Your task to perform on an android device: Open ESPN.com Image 0: 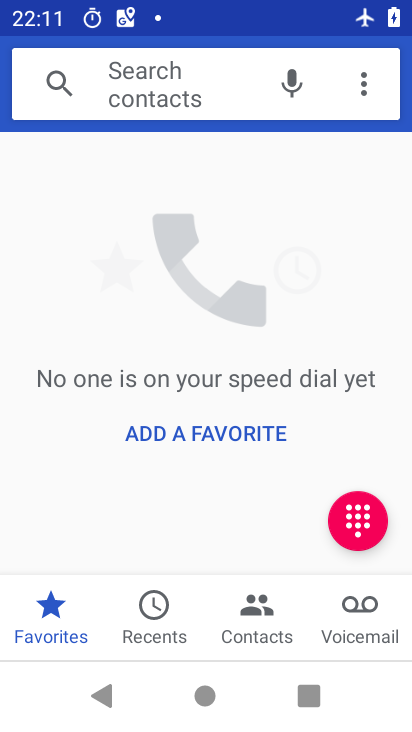
Step 0: press home button
Your task to perform on an android device: Open ESPN.com Image 1: 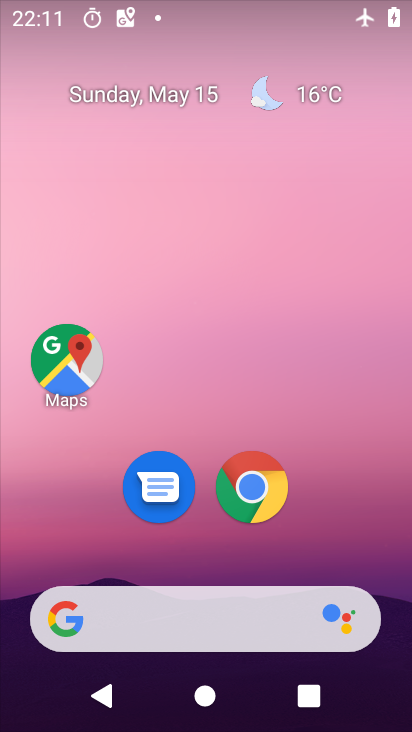
Step 1: click (255, 489)
Your task to perform on an android device: Open ESPN.com Image 2: 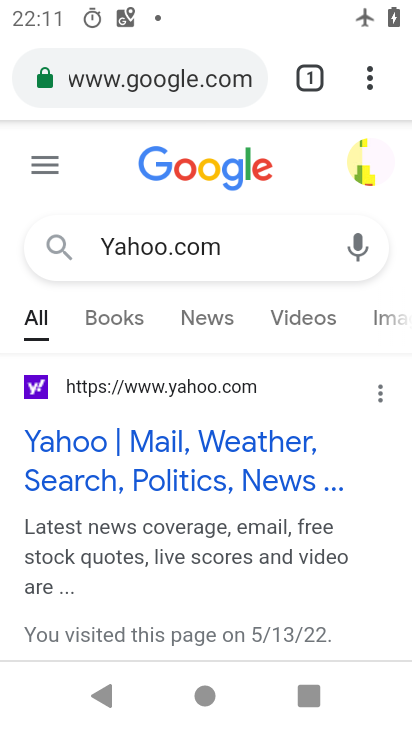
Step 2: click (251, 79)
Your task to perform on an android device: Open ESPN.com Image 3: 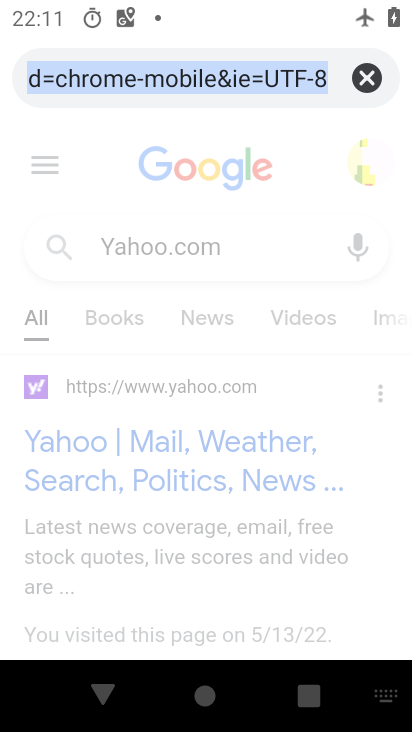
Step 3: click (358, 78)
Your task to perform on an android device: Open ESPN.com Image 4: 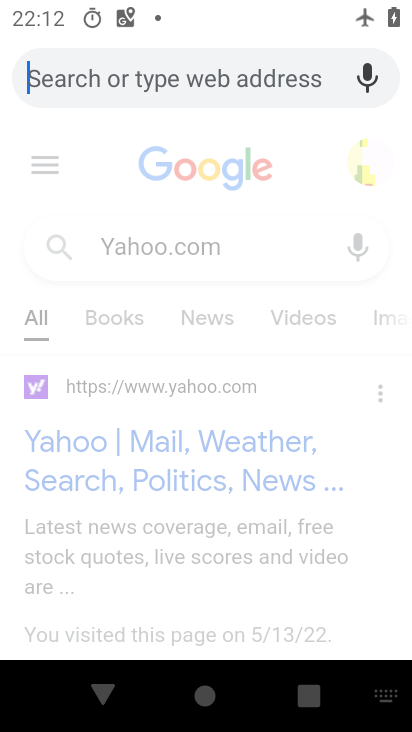
Step 4: type "ESPN.com"
Your task to perform on an android device: Open ESPN.com Image 5: 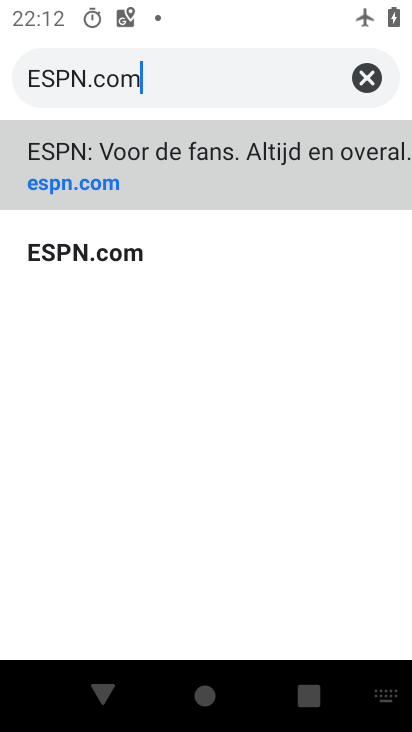
Step 5: click (59, 251)
Your task to perform on an android device: Open ESPN.com Image 6: 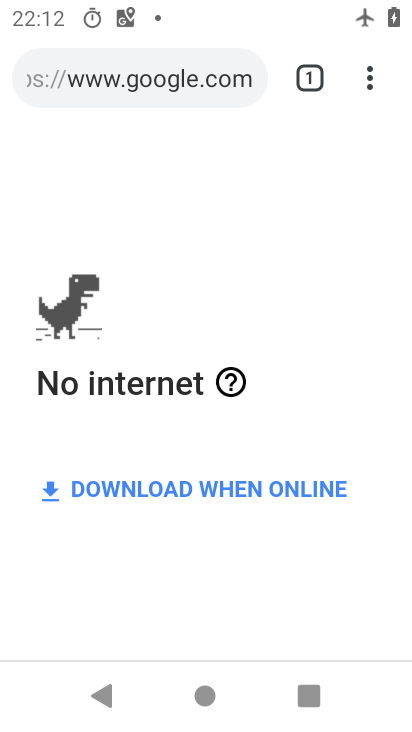
Step 6: task complete